Your task to perform on an android device: add a contact Image 0: 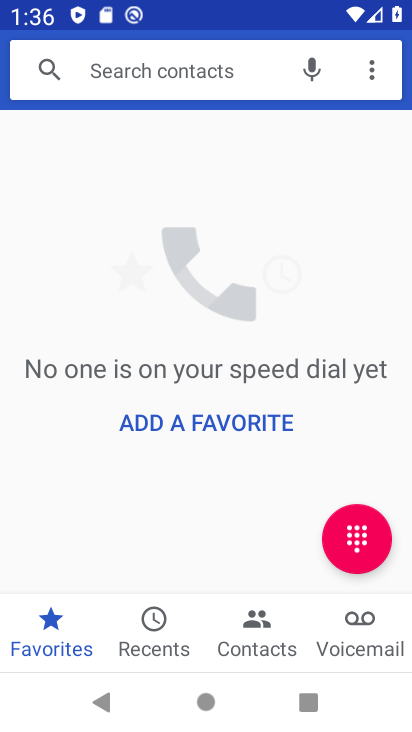
Step 0: press home button
Your task to perform on an android device: add a contact Image 1: 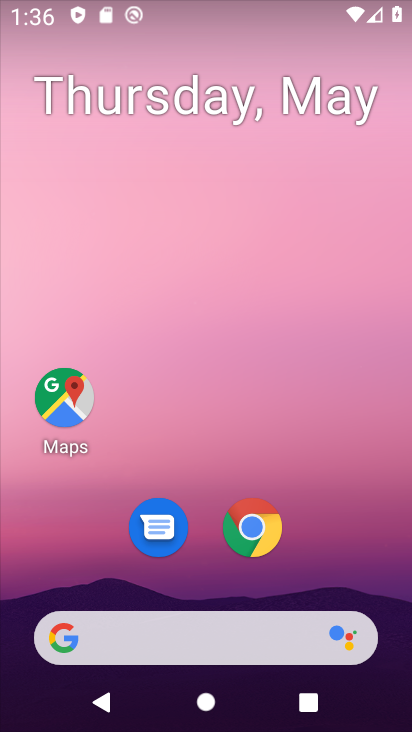
Step 1: drag from (313, 331) to (301, 44)
Your task to perform on an android device: add a contact Image 2: 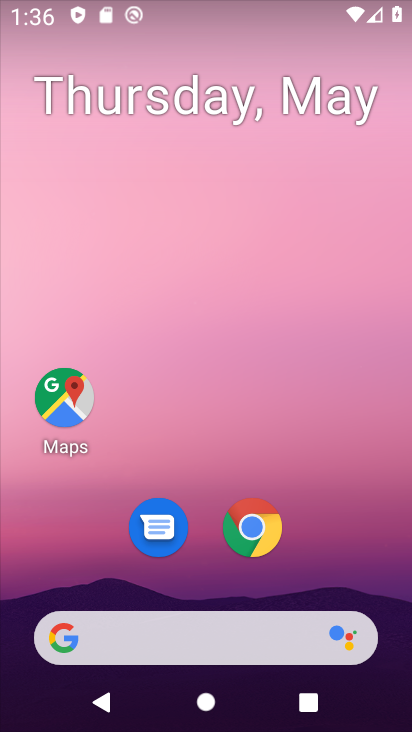
Step 2: drag from (336, 548) to (293, 81)
Your task to perform on an android device: add a contact Image 3: 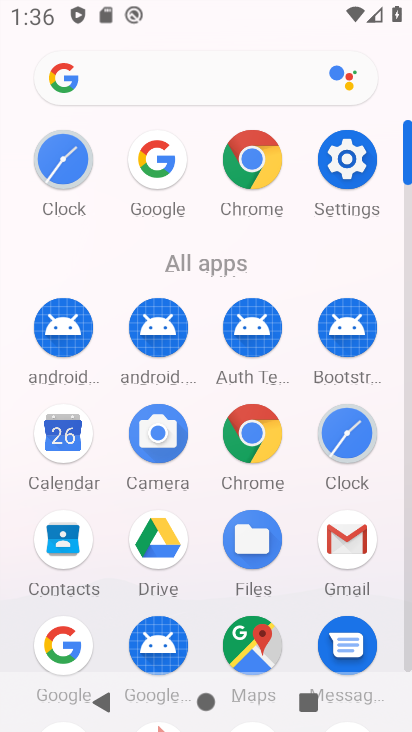
Step 3: click (78, 570)
Your task to perform on an android device: add a contact Image 4: 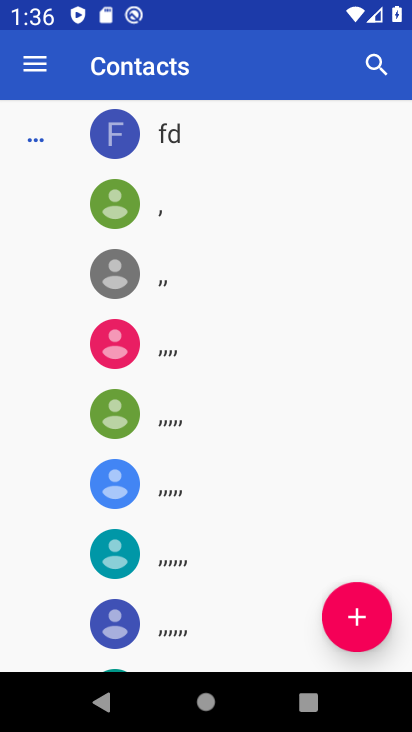
Step 4: click (360, 618)
Your task to perform on an android device: add a contact Image 5: 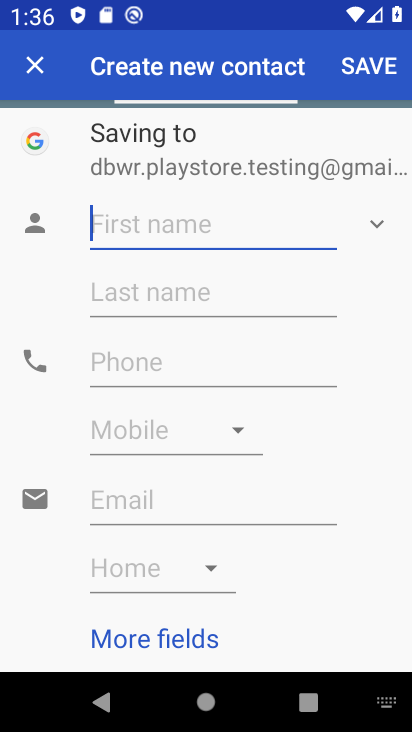
Step 5: type "z.c/"
Your task to perform on an android device: add a contact Image 6: 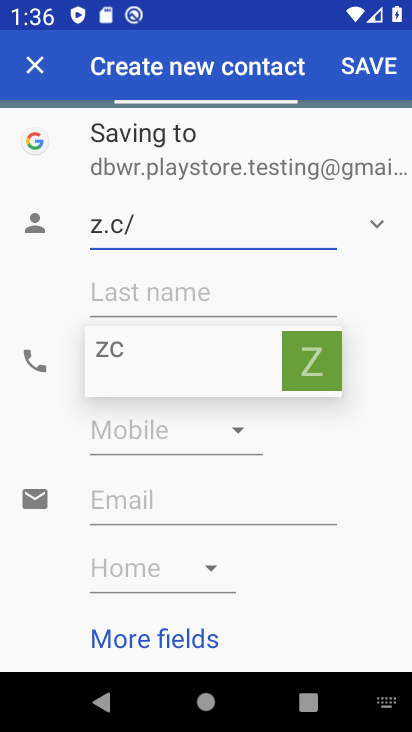
Step 6: click (405, 326)
Your task to perform on an android device: add a contact Image 7: 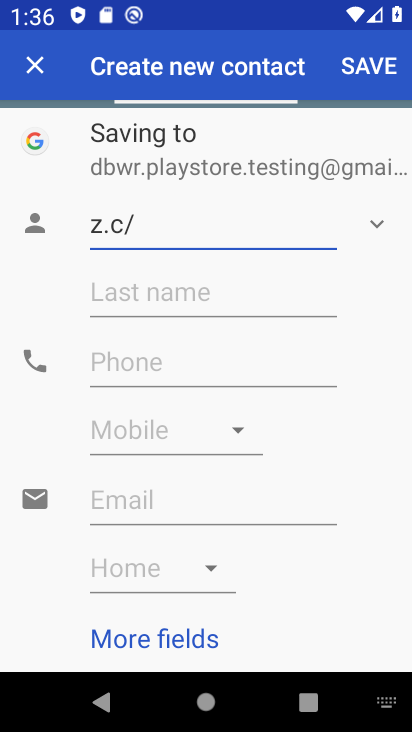
Step 7: click (256, 352)
Your task to perform on an android device: add a contact Image 8: 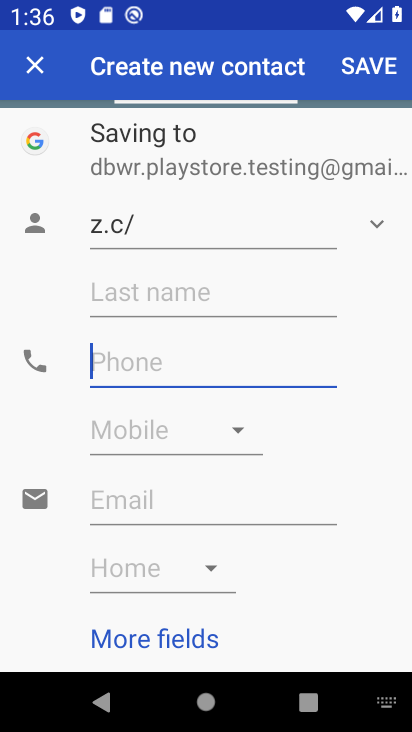
Step 8: click (256, 352)
Your task to perform on an android device: add a contact Image 9: 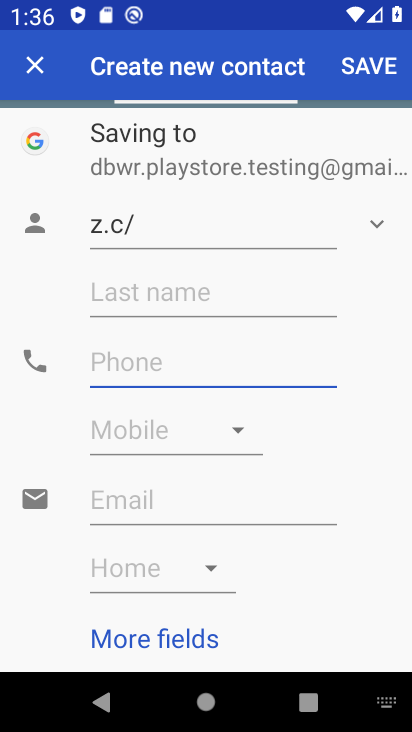
Step 9: click (256, 352)
Your task to perform on an android device: add a contact Image 10: 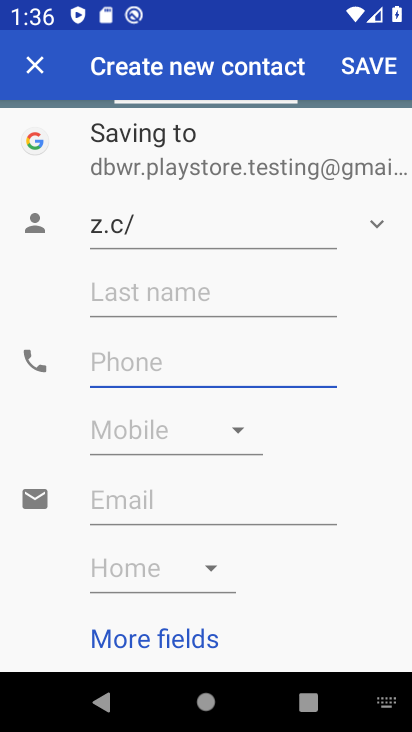
Step 10: click (256, 352)
Your task to perform on an android device: add a contact Image 11: 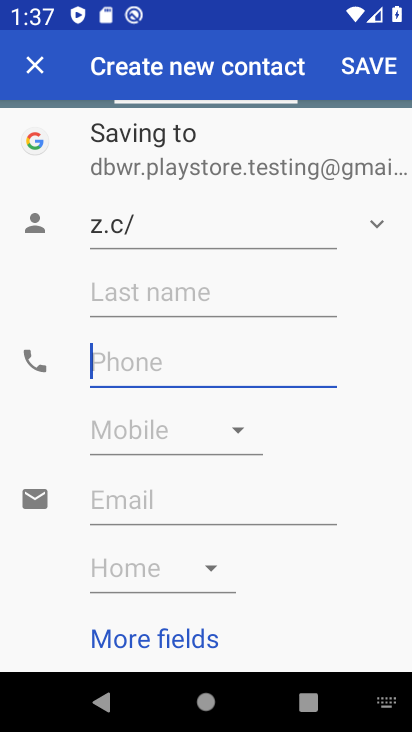
Step 11: type "==-098"
Your task to perform on an android device: add a contact Image 12: 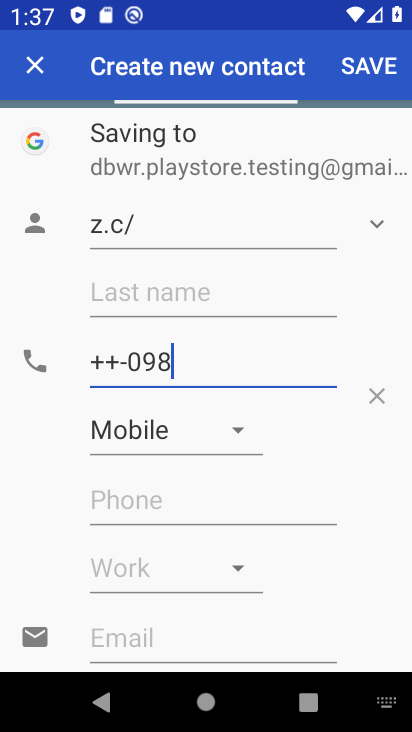
Step 12: click (365, 66)
Your task to perform on an android device: add a contact Image 13: 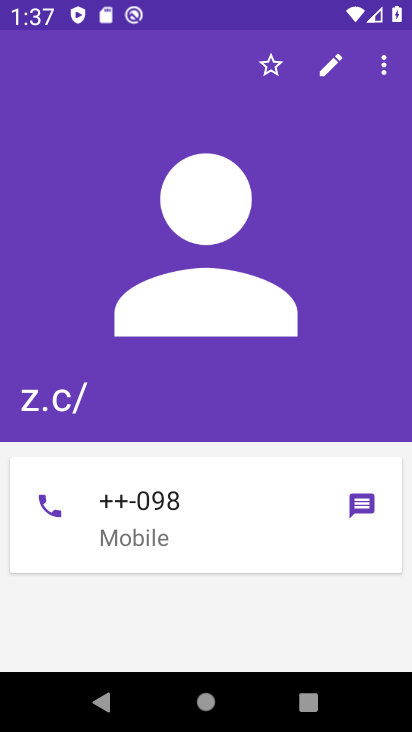
Step 13: task complete